Your task to perform on an android device: Open maps Image 0: 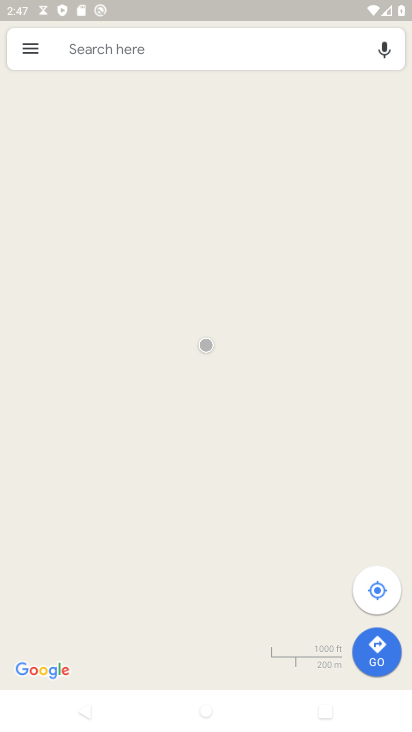
Step 0: press home button
Your task to perform on an android device: Open maps Image 1: 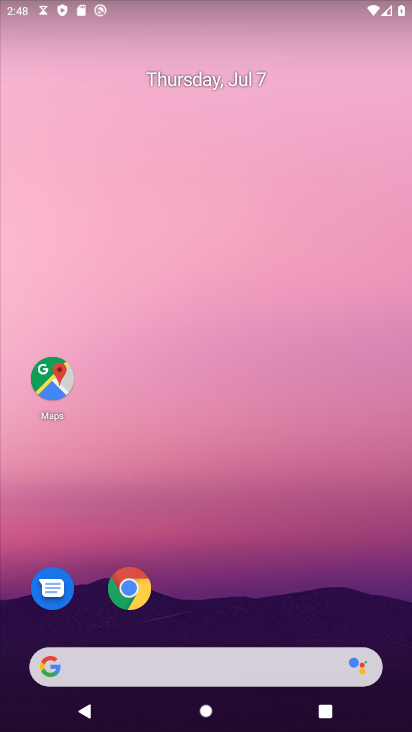
Step 1: click (54, 379)
Your task to perform on an android device: Open maps Image 2: 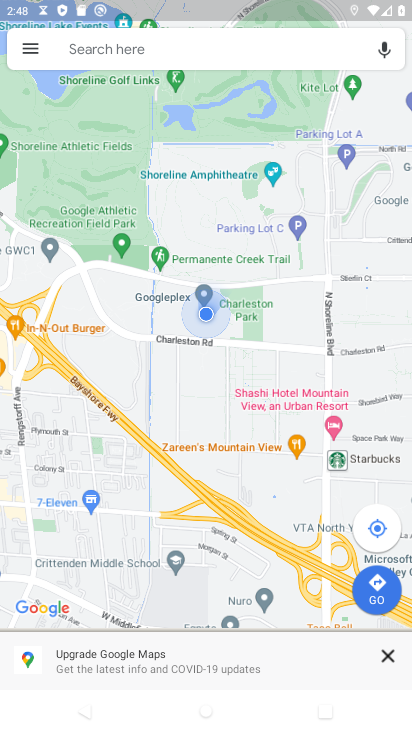
Step 2: task complete